Your task to perform on an android device: read, delete, or share a saved page in the chrome app Image 0: 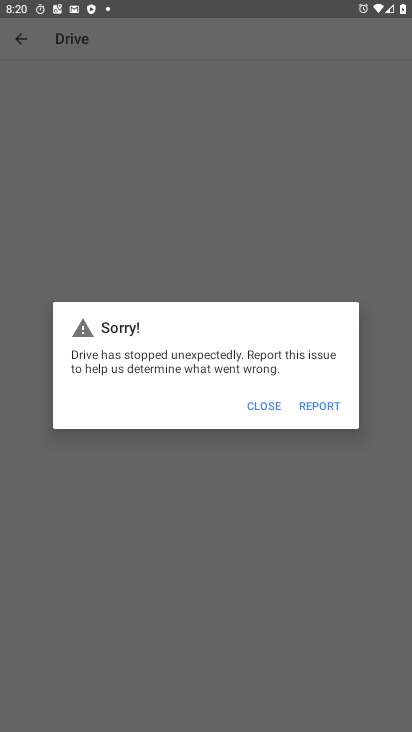
Step 0: press home button
Your task to perform on an android device: read, delete, or share a saved page in the chrome app Image 1: 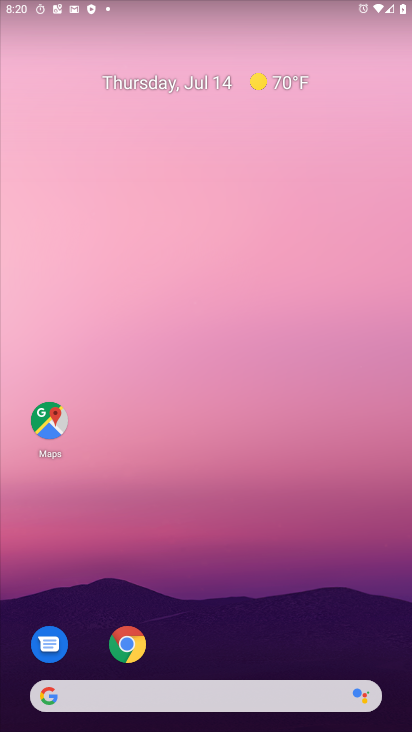
Step 1: click (125, 639)
Your task to perform on an android device: read, delete, or share a saved page in the chrome app Image 2: 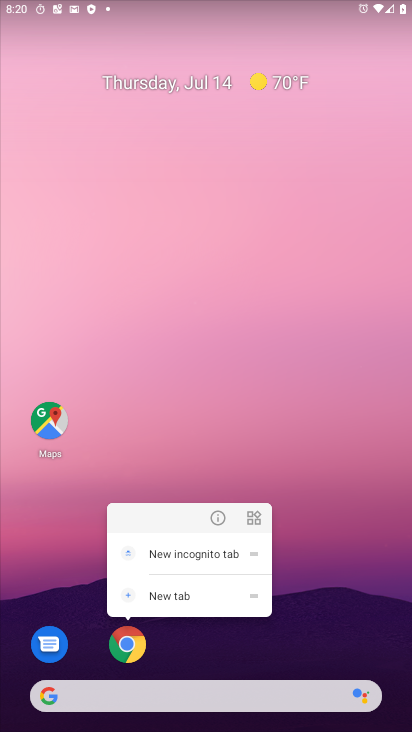
Step 2: click (120, 645)
Your task to perform on an android device: read, delete, or share a saved page in the chrome app Image 3: 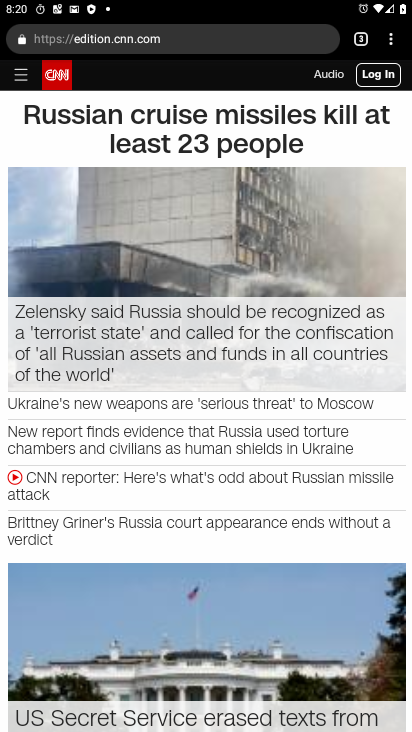
Step 3: drag from (394, 43) to (261, 300)
Your task to perform on an android device: read, delete, or share a saved page in the chrome app Image 4: 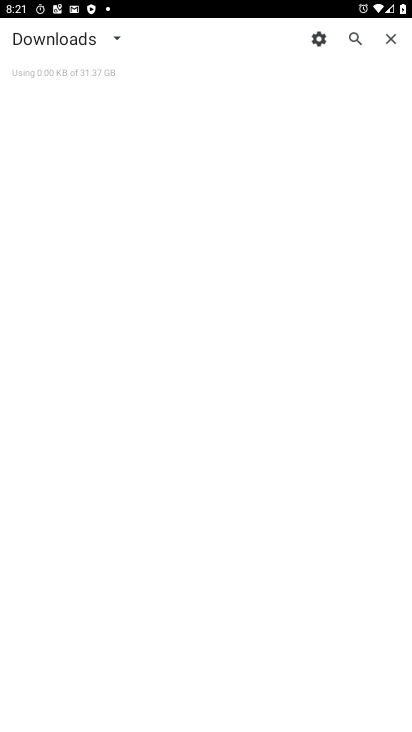
Step 4: click (115, 36)
Your task to perform on an android device: read, delete, or share a saved page in the chrome app Image 5: 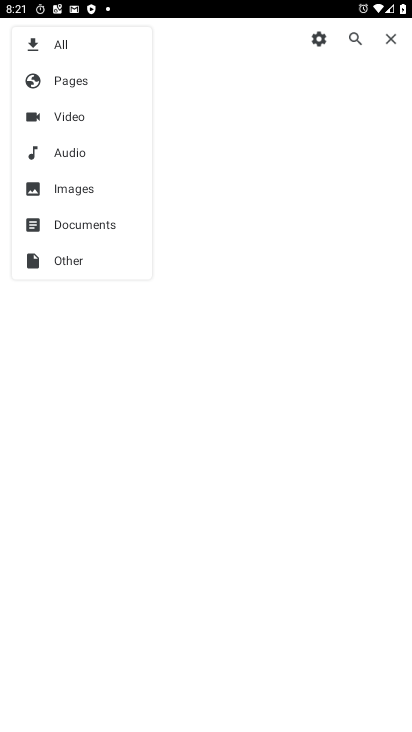
Step 5: click (82, 75)
Your task to perform on an android device: read, delete, or share a saved page in the chrome app Image 6: 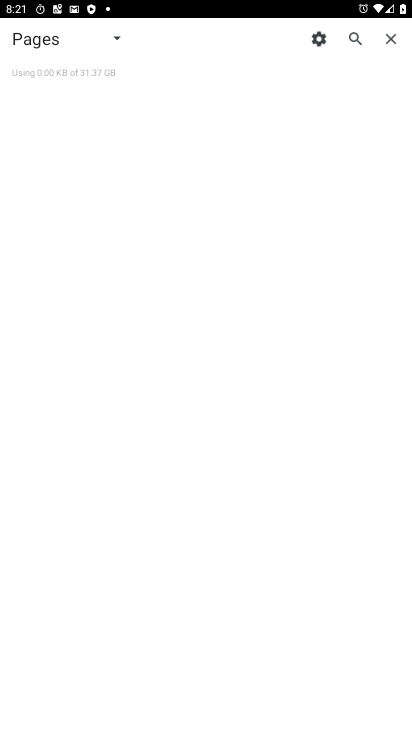
Step 6: task complete